Your task to perform on an android device: Open Chrome and go to settings Image 0: 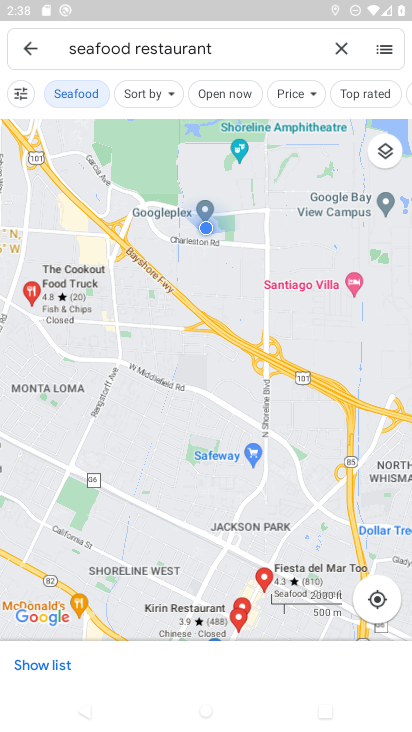
Step 0: press home button
Your task to perform on an android device: Open Chrome and go to settings Image 1: 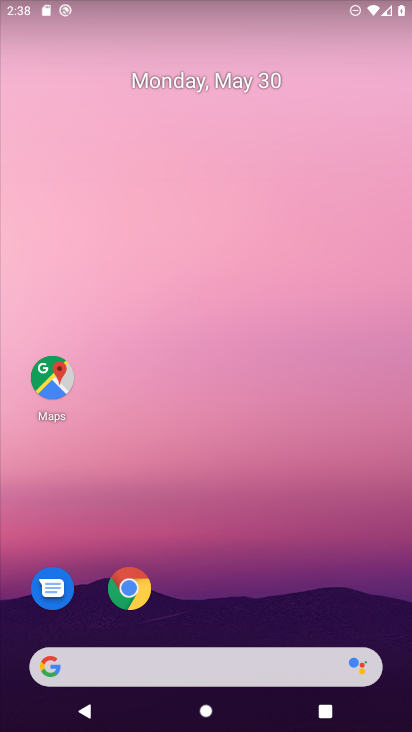
Step 1: click (133, 582)
Your task to perform on an android device: Open Chrome and go to settings Image 2: 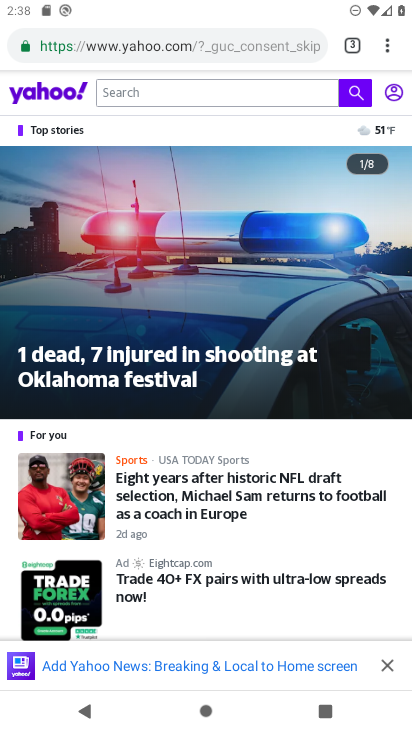
Step 2: click (384, 44)
Your task to perform on an android device: Open Chrome and go to settings Image 3: 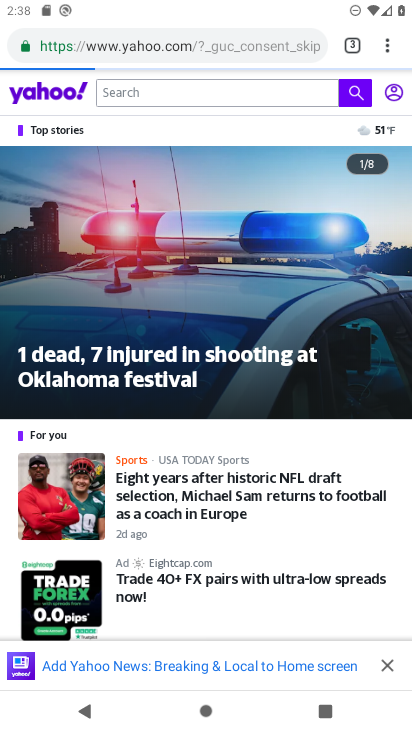
Step 3: click (390, 30)
Your task to perform on an android device: Open Chrome and go to settings Image 4: 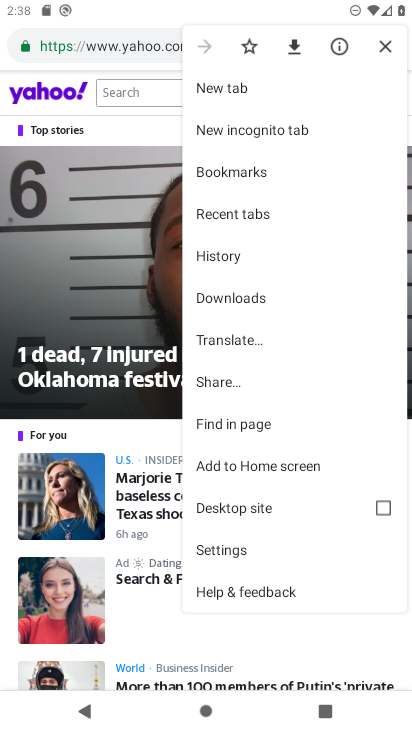
Step 4: click (231, 551)
Your task to perform on an android device: Open Chrome and go to settings Image 5: 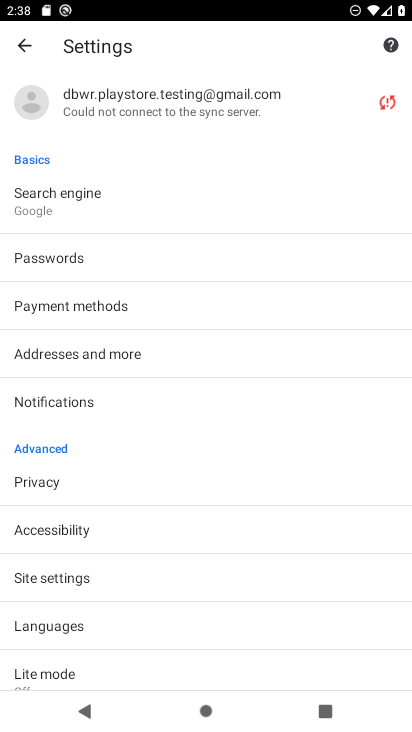
Step 5: task complete